Your task to perform on an android device: delete browsing data in the chrome app Image 0: 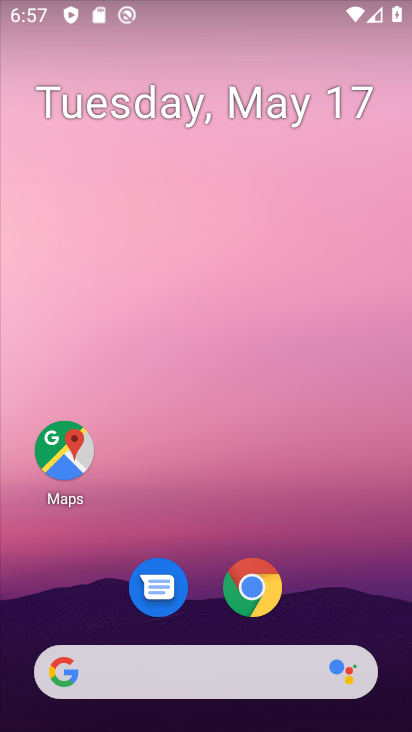
Step 0: drag from (224, 693) to (71, 197)
Your task to perform on an android device: delete browsing data in the chrome app Image 1: 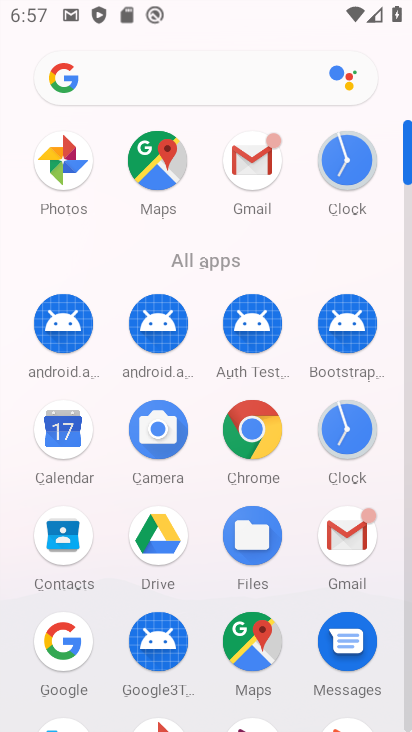
Step 1: click (240, 435)
Your task to perform on an android device: delete browsing data in the chrome app Image 2: 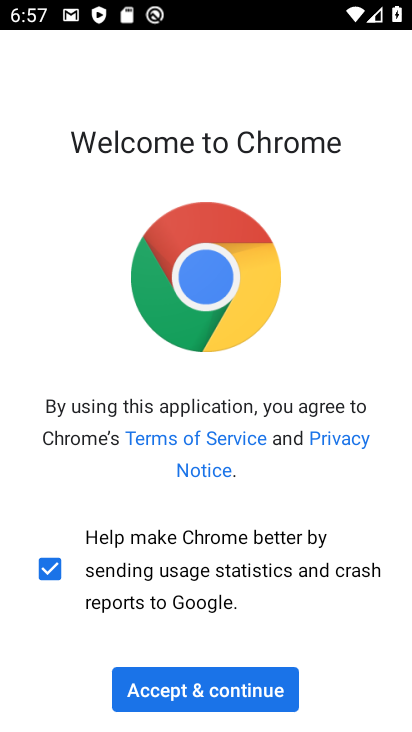
Step 2: click (241, 686)
Your task to perform on an android device: delete browsing data in the chrome app Image 3: 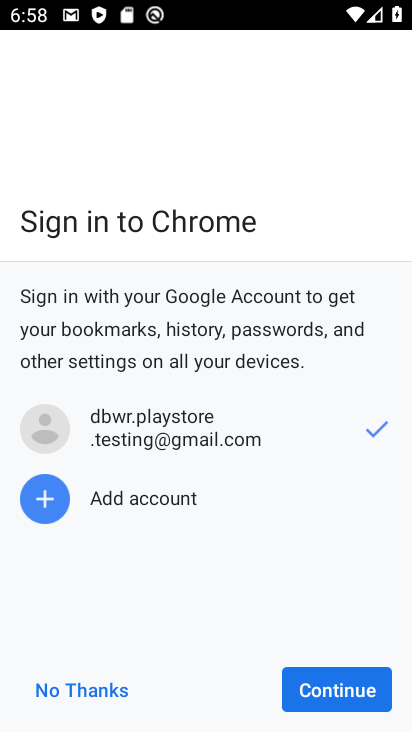
Step 3: click (299, 690)
Your task to perform on an android device: delete browsing data in the chrome app Image 4: 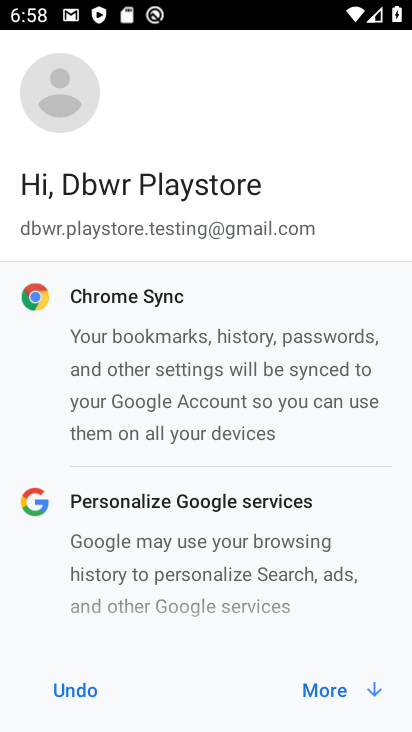
Step 4: drag from (241, 515) to (295, 286)
Your task to perform on an android device: delete browsing data in the chrome app Image 5: 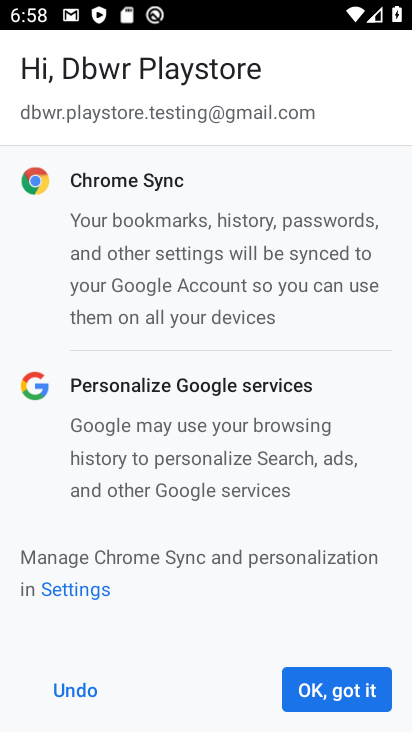
Step 5: click (355, 689)
Your task to perform on an android device: delete browsing data in the chrome app Image 6: 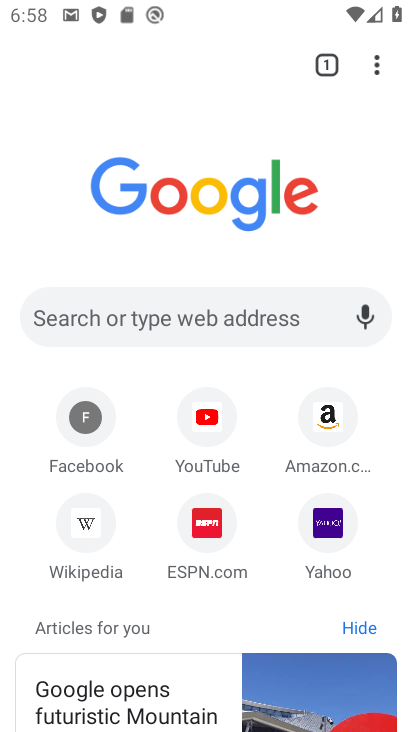
Step 6: click (365, 70)
Your task to perform on an android device: delete browsing data in the chrome app Image 7: 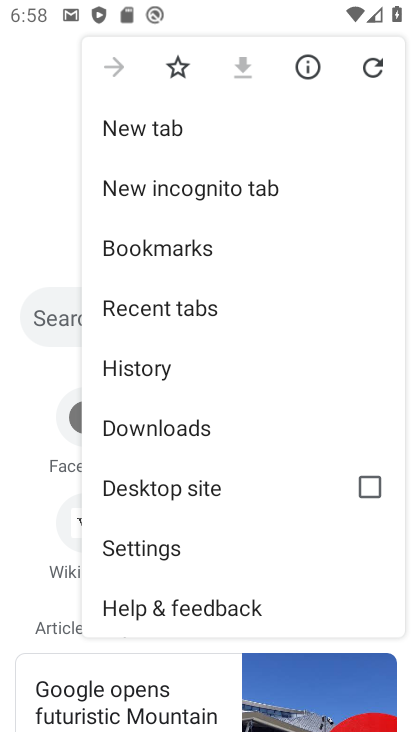
Step 7: click (142, 373)
Your task to perform on an android device: delete browsing data in the chrome app Image 8: 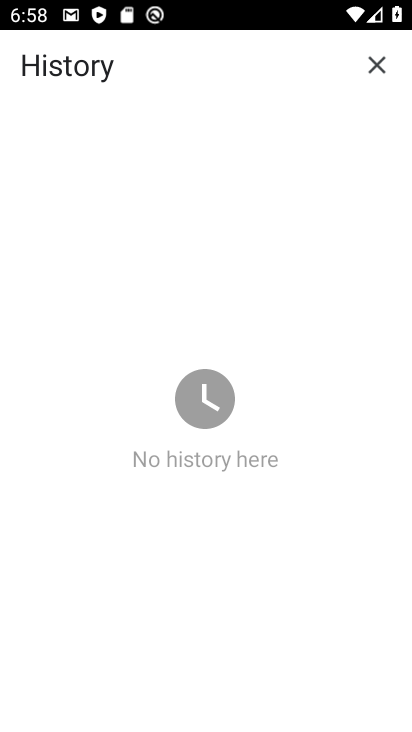
Step 8: task complete